Your task to perform on an android device: toggle location history Image 0: 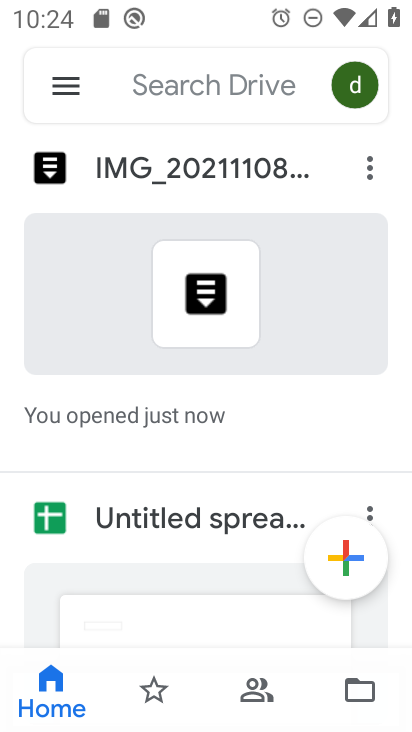
Step 0: press home button
Your task to perform on an android device: toggle location history Image 1: 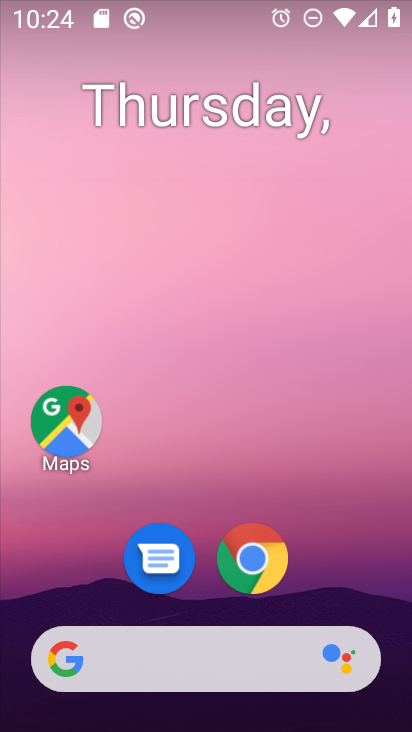
Step 1: drag from (374, 603) to (326, 39)
Your task to perform on an android device: toggle location history Image 2: 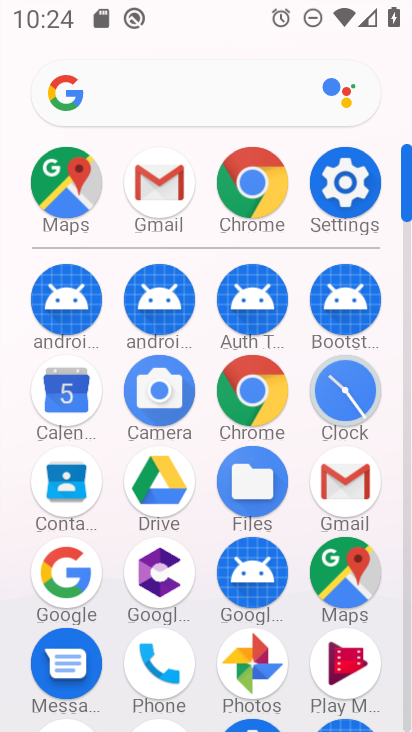
Step 2: click (404, 691)
Your task to perform on an android device: toggle location history Image 3: 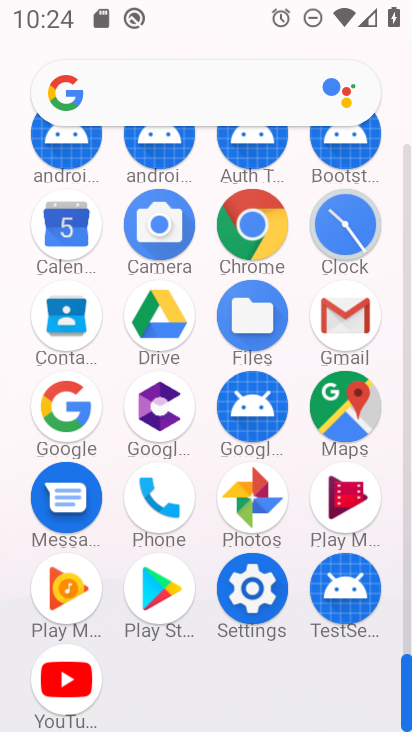
Step 3: click (249, 584)
Your task to perform on an android device: toggle location history Image 4: 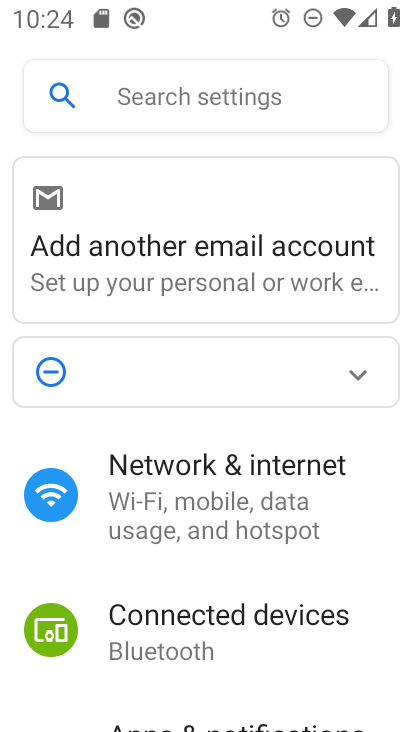
Step 4: drag from (314, 671) to (303, 7)
Your task to perform on an android device: toggle location history Image 5: 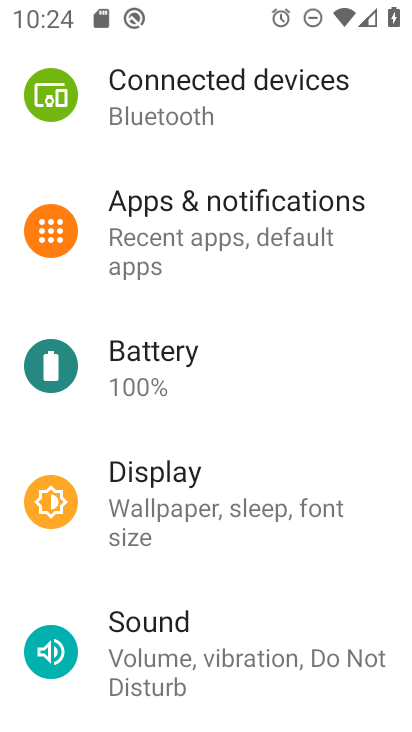
Step 5: drag from (296, 631) to (299, 108)
Your task to perform on an android device: toggle location history Image 6: 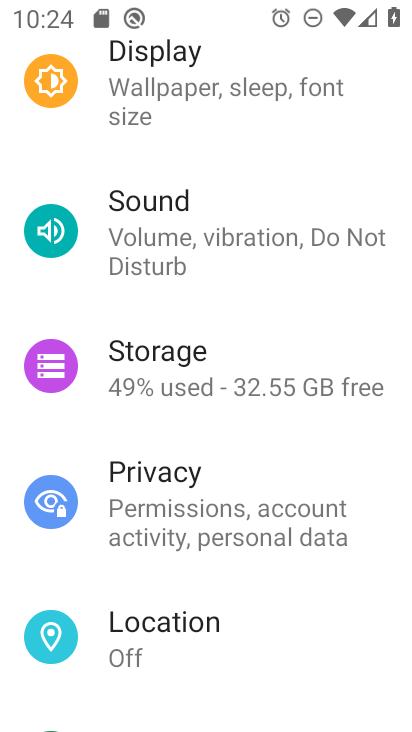
Step 6: click (193, 637)
Your task to perform on an android device: toggle location history Image 7: 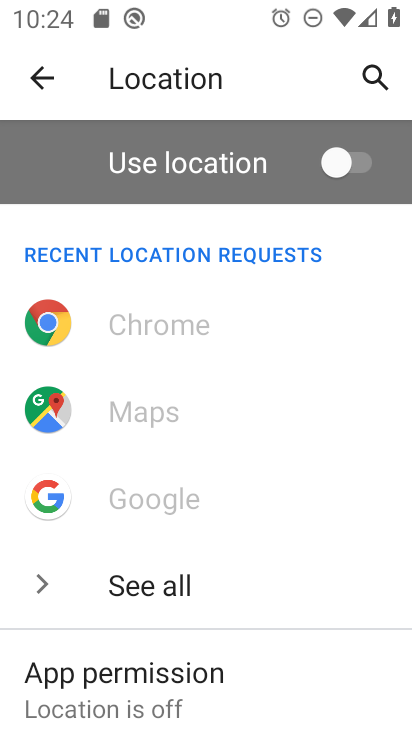
Step 7: drag from (303, 647) to (259, 77)
Your task to perform on an android device: toggle location history Image 8: 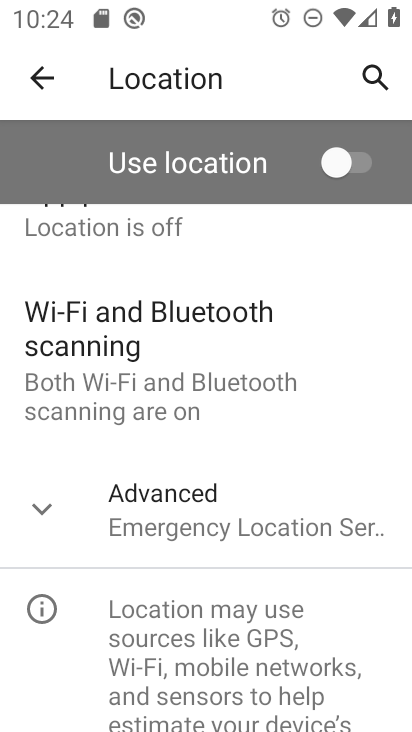
Step 8: click (38, 500)
Your task to perform on an android device: toggle location history Image 9: 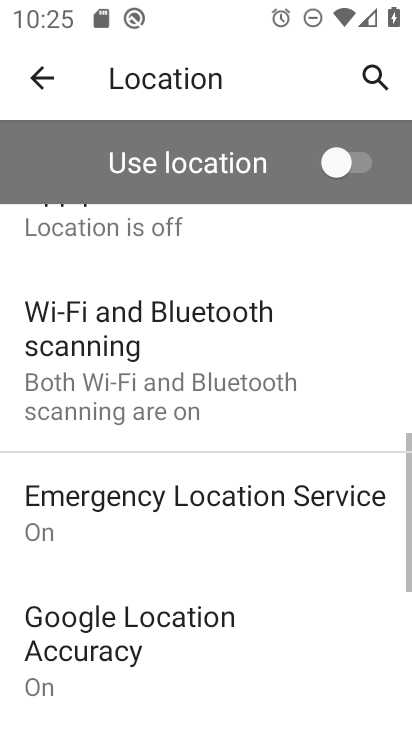
Step 9: drag from (278, 534) to (237, 180)
Your task to perform on an android device: toggle location history Image 10: 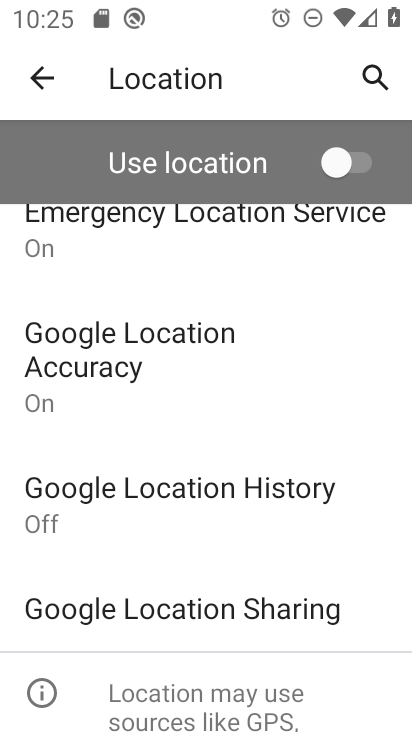
Step 10: click (135, 501)
Your task to perform on an android device: toggle location history Image 11: 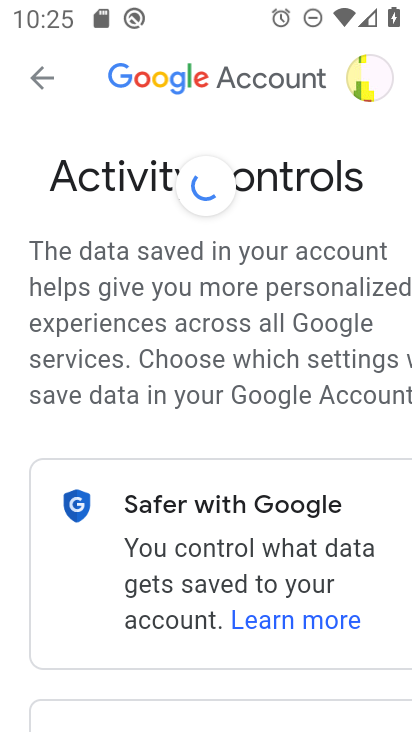
Step 11: drag from (230, 672) to (263, 164)
Your task to perform on an android device: toggle location history Image 12: 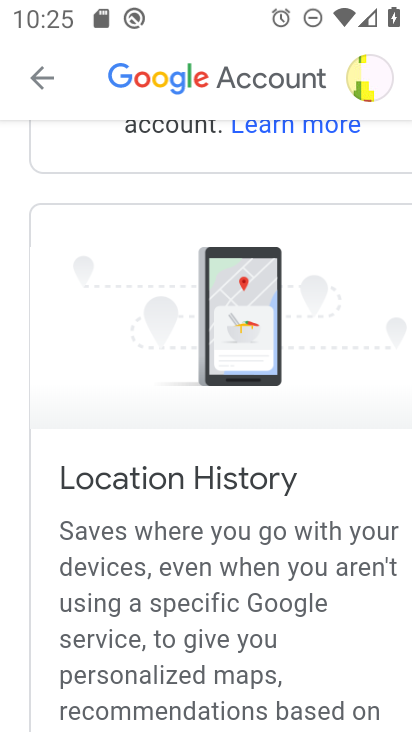
Step 12: drag from (236, 669) to (224, 123)
Your task to perform on an android device: toggle location history Image 13: 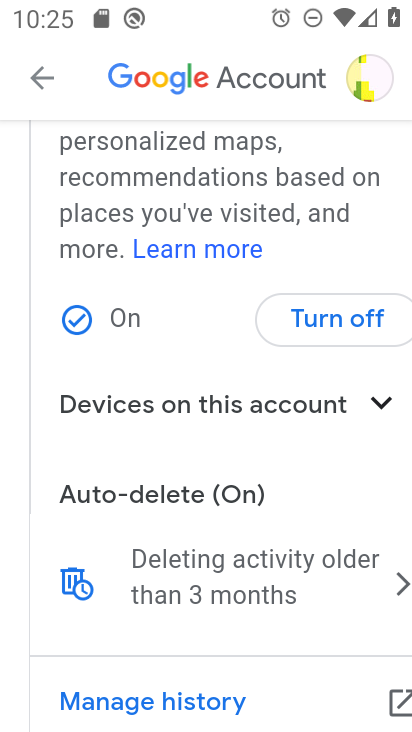
Step 13: click (345, 321)
Your task to perform on an android device: toggle location history Image 14: 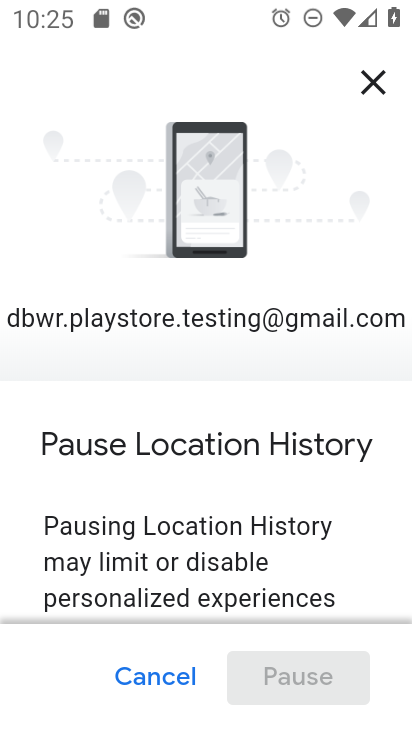
Step 14: drag from (228, 577) to (221, 116)
Your task to perform on an android device: toggle location history Image 15: 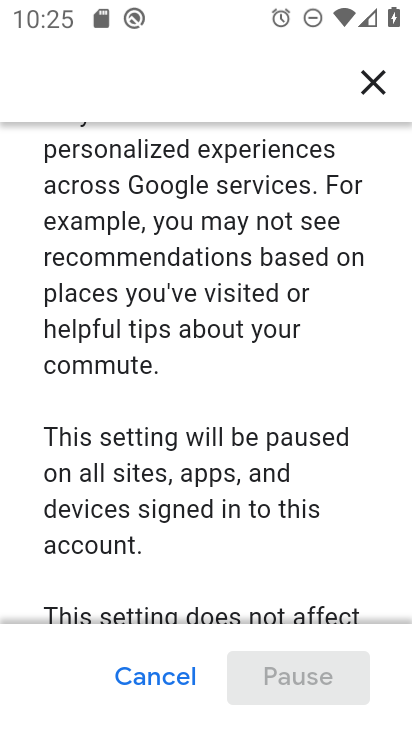
Step 15: drag from (234, 554) to (248, 83)
Your task to perform on an android device: toggle location history Image 16: 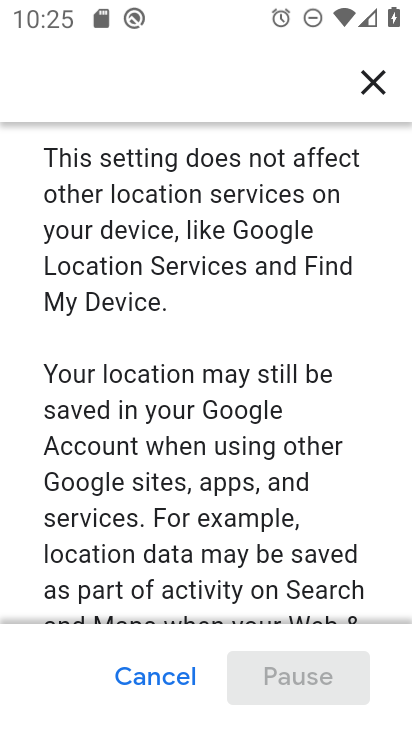
Step 16: drag from (249, 596) to (213, 45)
Your task to perform on an android device: toggle location history Image 17: 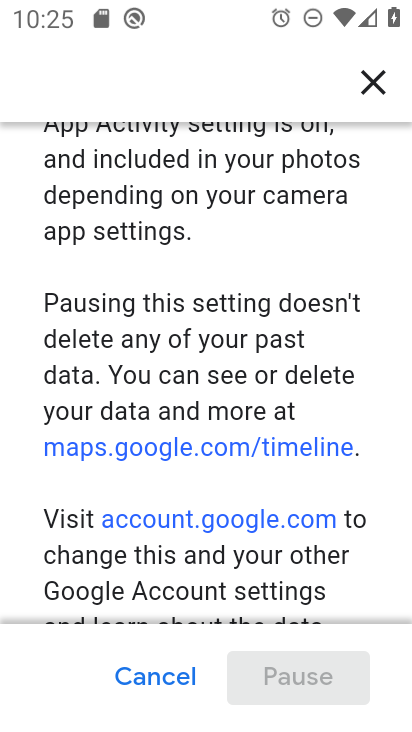
Step 17: drag from (257, 566) to (241, 67)
Your task to perform on an android device: toggle location history Image 18: 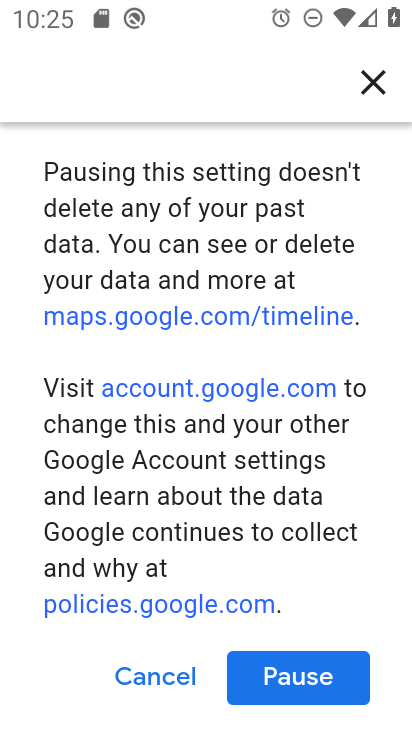
Step 18: click (298, 680)
Your task to perform on an android device: toggle location history Image 19: 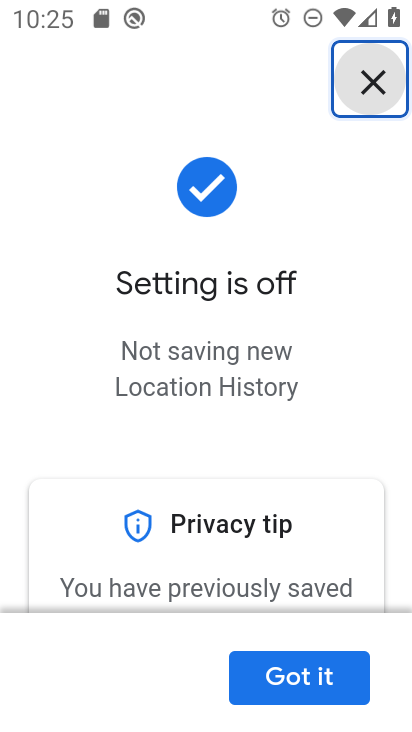
Step 19: click (291, 674)
Your task to perform on an android device: toggle location history Image 20: 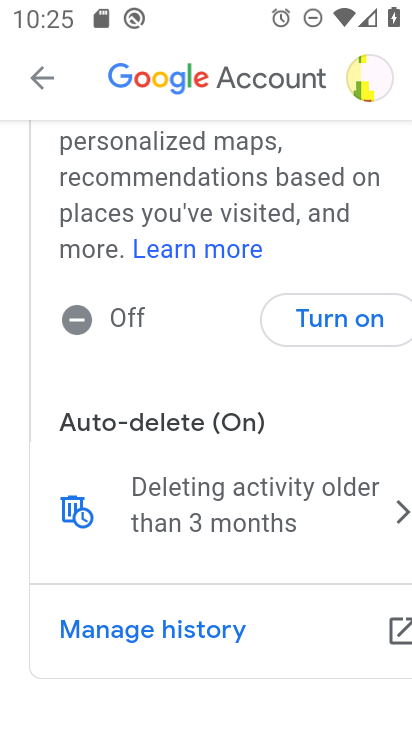
Step 20: task complete